Your task to perform on an android device: Check the settings for the Google Play Books app Image 0: 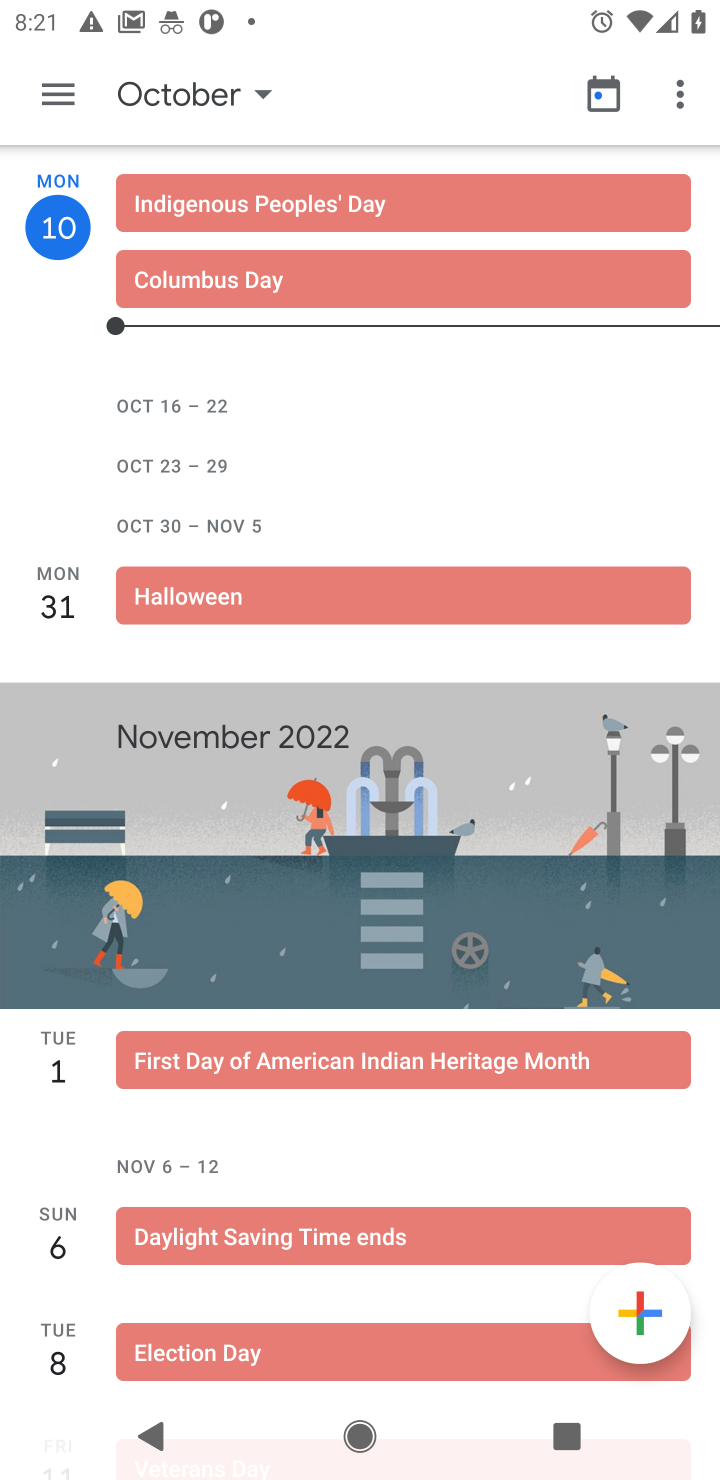
Step 0: press home button
Your task to perform on an android device: Check the settings for the Google Play Books app Image 1: 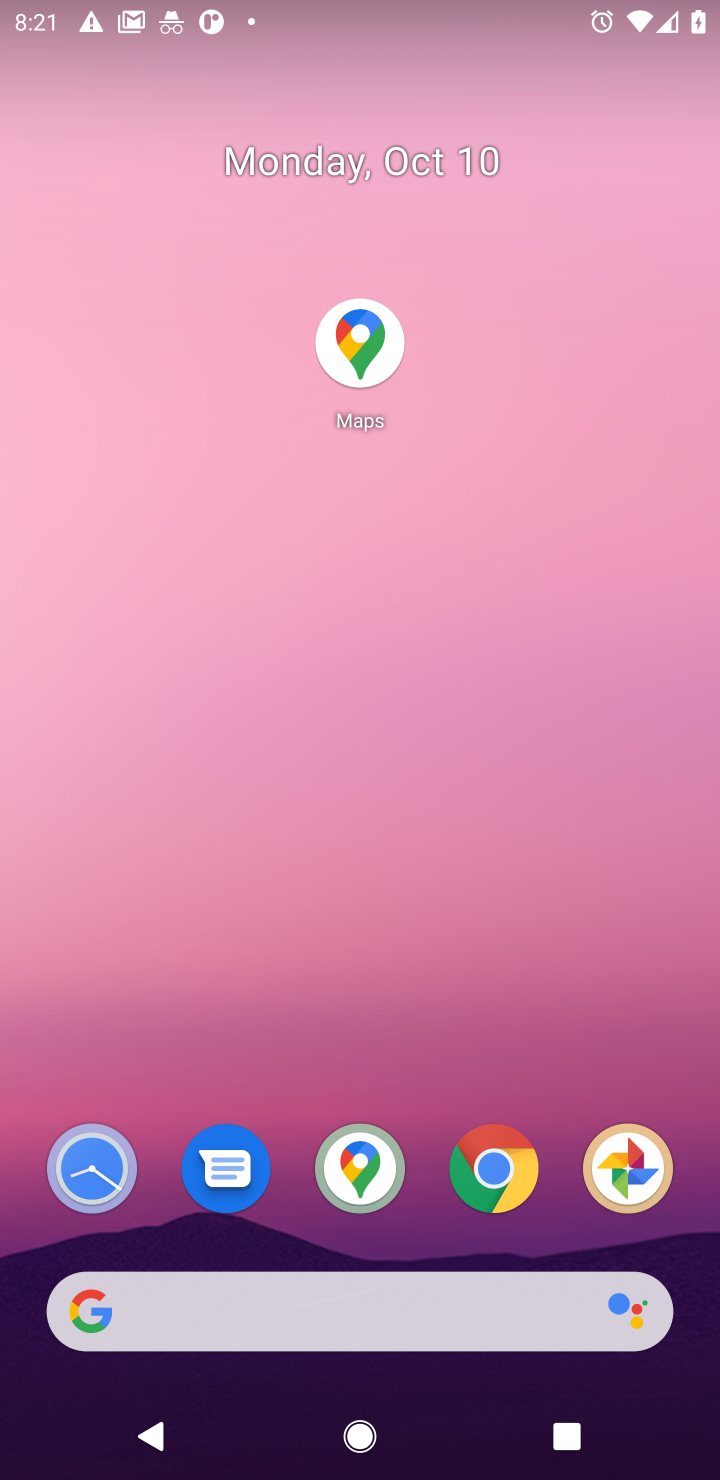
Step 1: task complete